Your task to perform on an android device: Open my contact list Image 0: 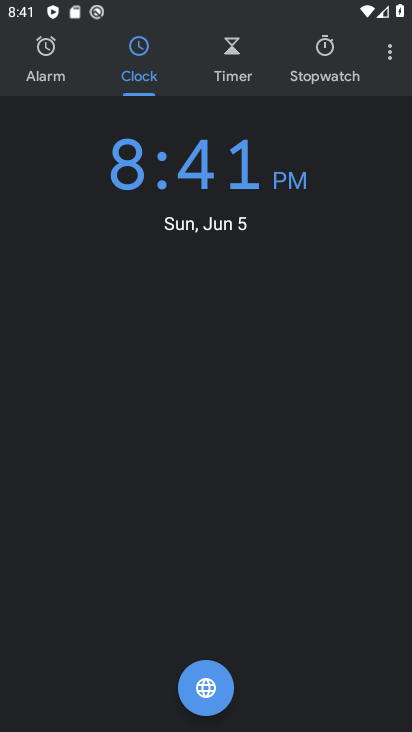
Step 0: drag from (148, 727) to (256, 209)
Your task to perform on an android device: Open my contact list Image 1: 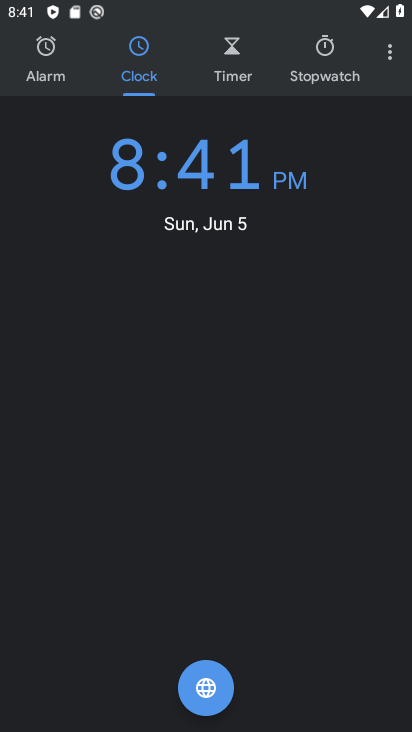
Step 1: press home button
Your task to perform on an android device: Open my contact list Image 2: 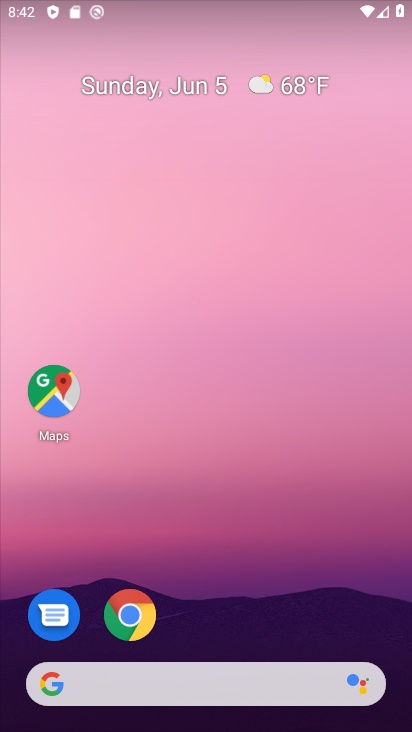
Step 2: drag from (234, 730) to (264, 285)
Your task to perform on an android device: Open my contact list Image 3: 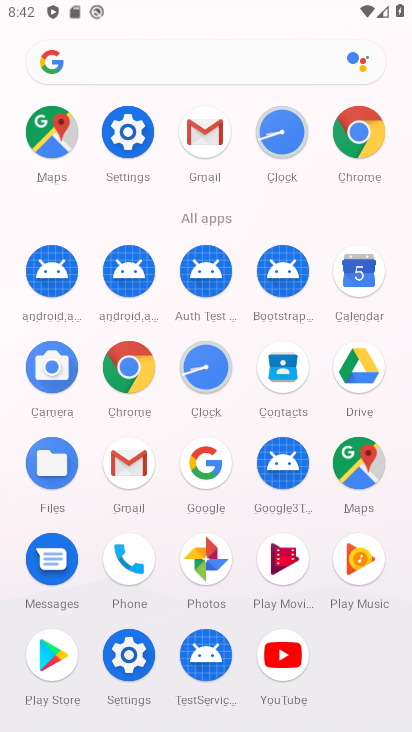
Step 3: click (295, 356)
Your task to perform on an android device: Open my contact list Image 4: 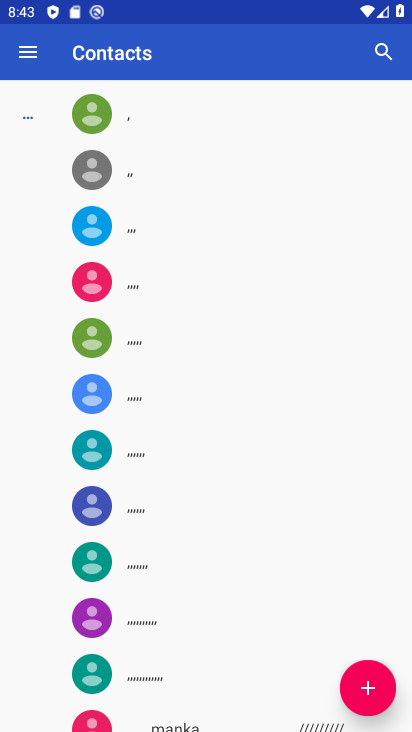
Step 4: task complete